Your task to perform on an android device: Go to wifi settings Image 0: 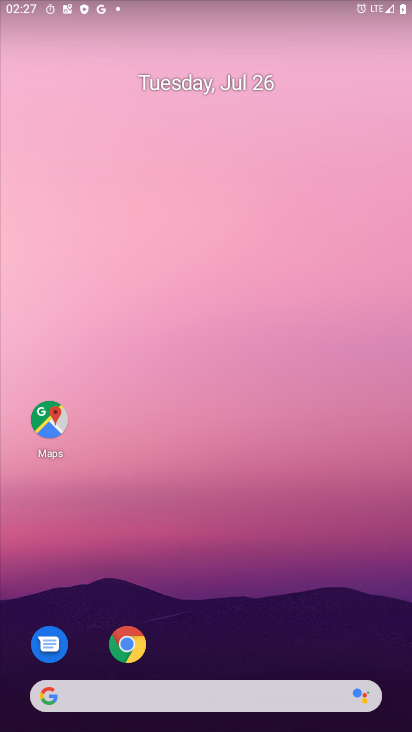
Step 0: drag from (220, 663) to (232, 103)
Your task to perform on an android device: Go to wifi settings Image 1: 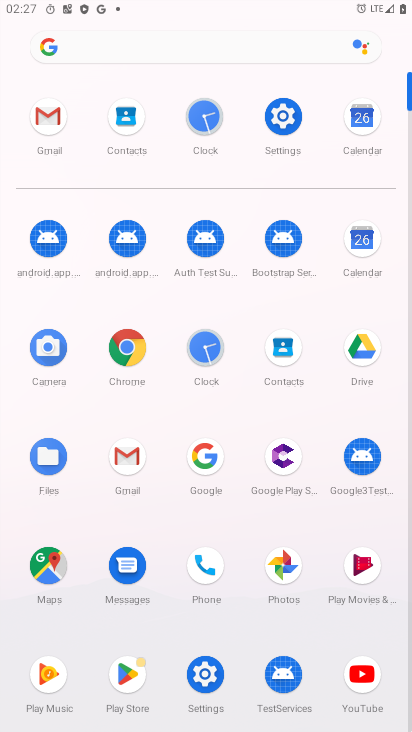
Step 1: click (280, 118)
Your task to perform on an android device: Go to wifi settings Image 2: 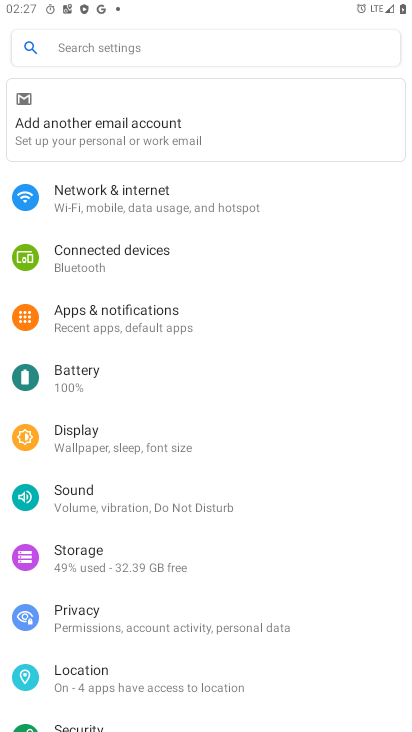
Step 2: click (132, 209)
Your task to perform on an android device: Go to wifi settings Image 3: 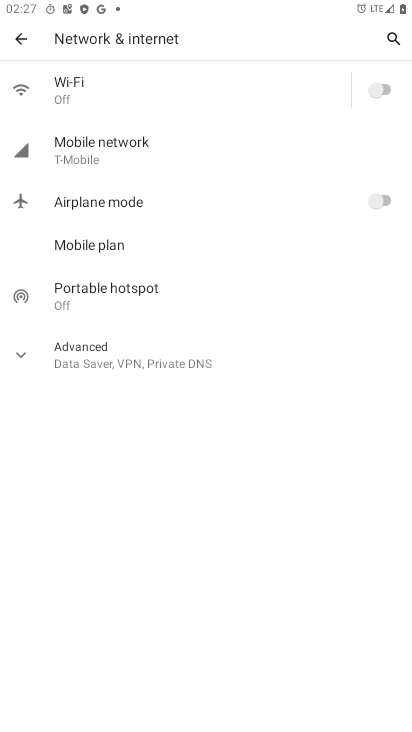
Step 3: click (40, 89)
Your task to perform on an android device: Go to wifi settings Image 4: 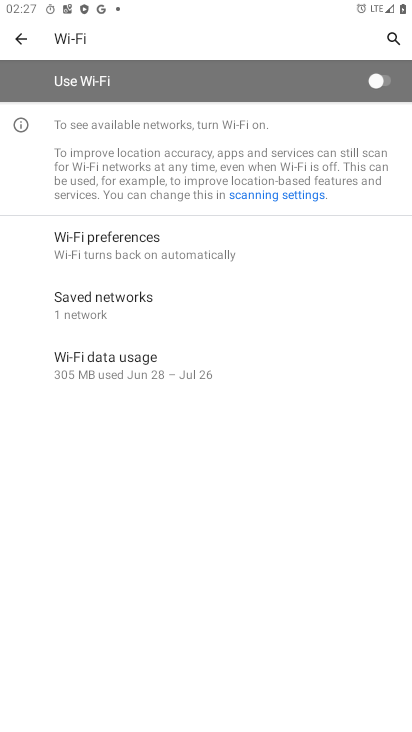
Step 4: task complete